Your task to perform on an android device: set the stopwatch Image 0: 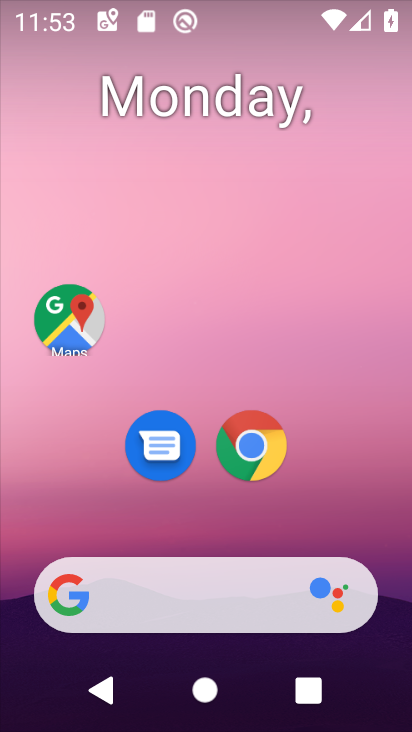
Step 0: drag from (308, 502) to (245, 56)
Your task to perform on an android device: set the stopwatch Image 1: 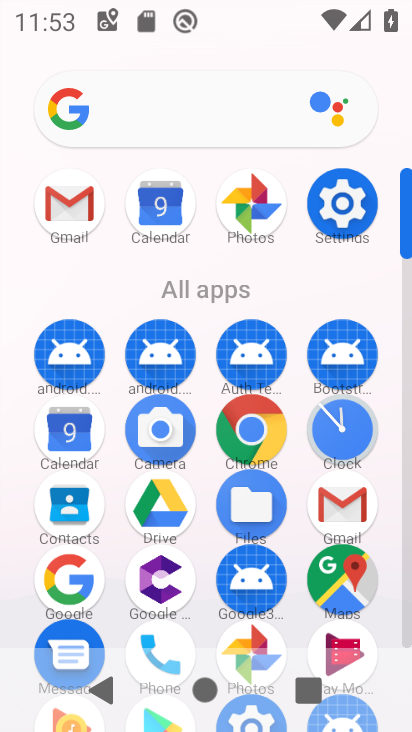
Step 1: click (342, 427)
Your task to perform on an android device: set the stopwatch Image 2: 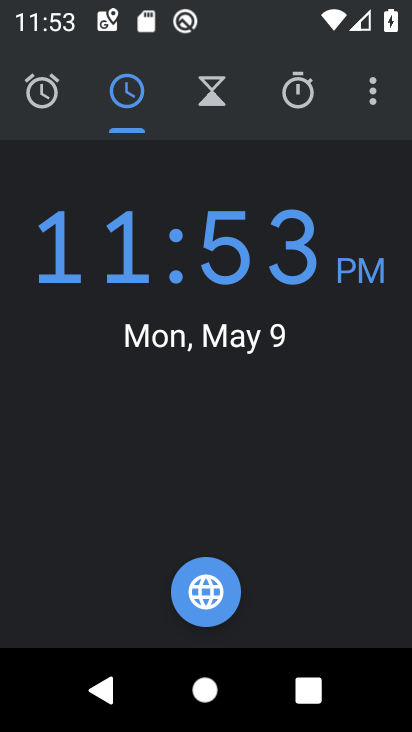
Step 2: click (303, 89)
Your task to perform on an android device: set the stopwatch Image 3: 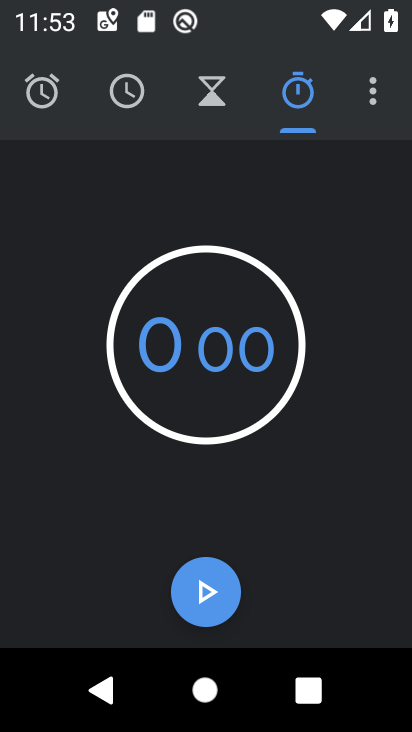
Step 3: task complete